Your task to perform on an android device: see tabs open on other devices in the chrome app Image 0: 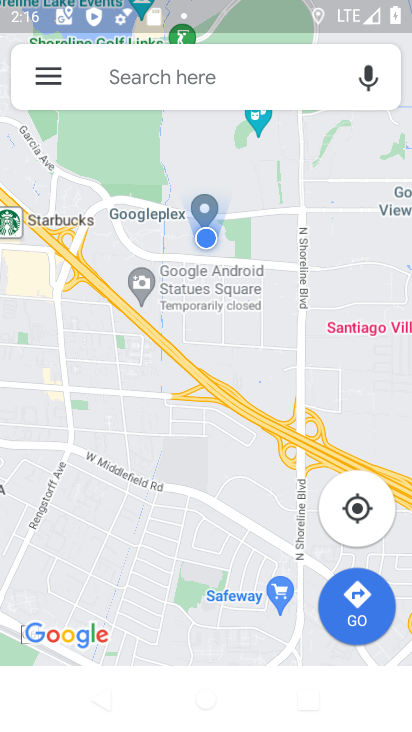
Step 0: press back button
Your task to perform on an android device: see tabs open on other devices in the chrome app Image 1: 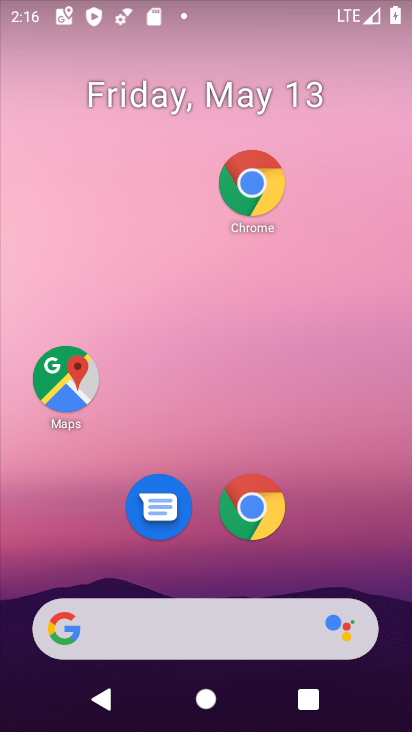
Step 1: drag from (236, 649) to (178, 202)
Your task to perform on an android device: see tabs open on other devices in the chrome app Image 2: 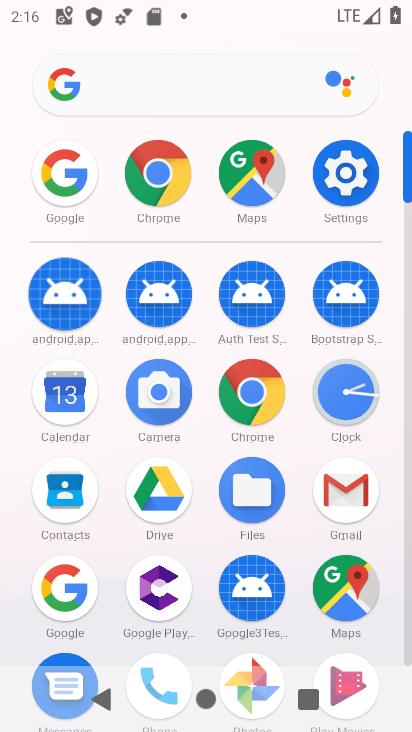
Step 2: click (160, 180)
Your task to perform on an android device: see tabs open on other devices in the chrome app Image 3: 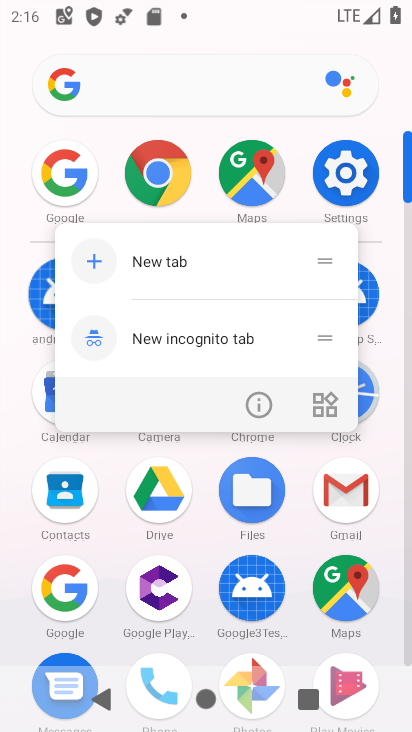
Step 3: click (153, 184)
Your task to perform on an android device: see tabs open on other devices in the chrome app Image 4: 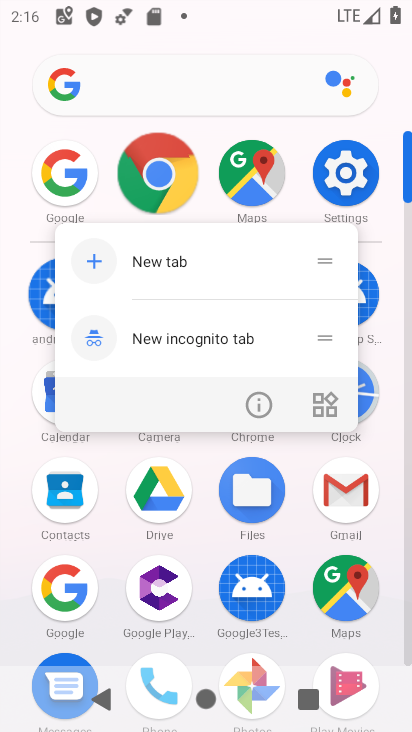
Step 4: click (153, 179)
Your task to perform on an android device: see tabs open on other devices in the chrome app Image 5: 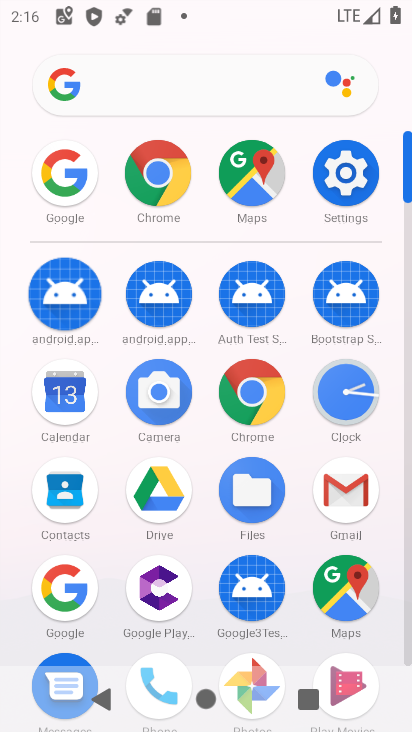
Step 5: click (153, 179)
Your task to perform on an android device: see tabs open on other devices in the chrome app Image 6: 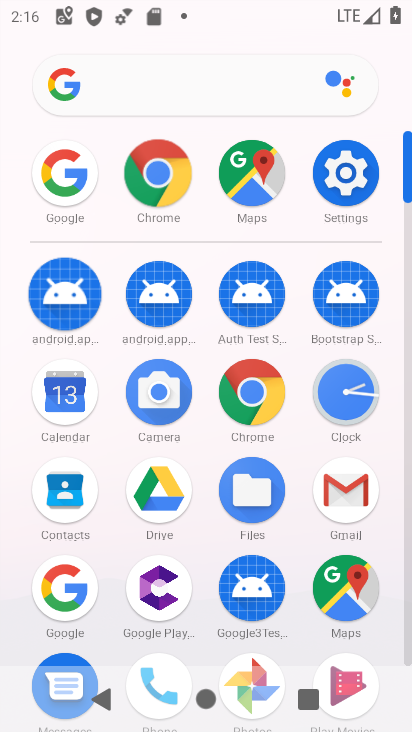
Step 6: click (153, 179)
Your task to perform on an android device: see tabs open on other devices in the chrome app Image 7: 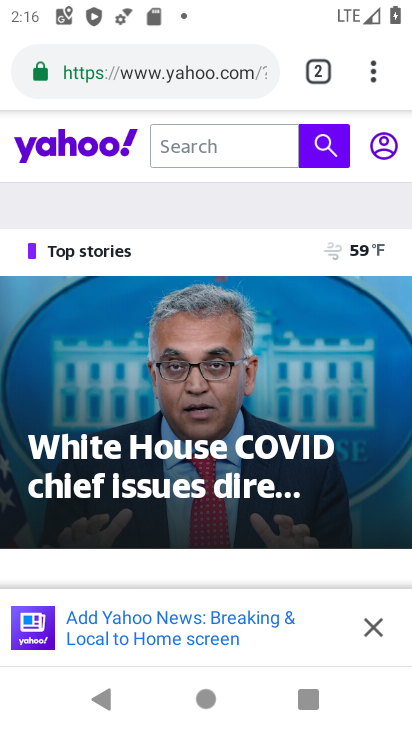
Step 7: drag from (375, 69) to (117, 120)
Your task to perform on an android device: see tabs open on other devices in the chrome app Image 8: 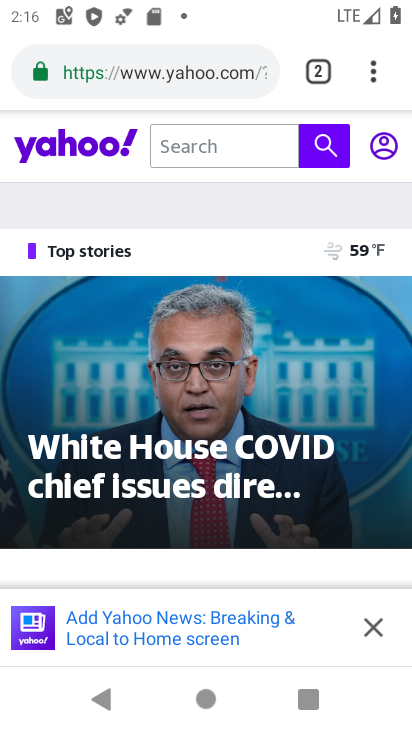
Step 8: click (231, 394)
Your task to perform on an android device: see tabs open on other devices in the chrome app Image 9: 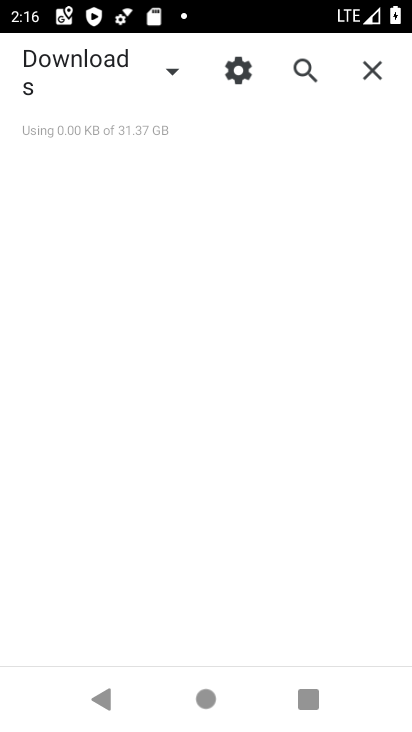
Step 9: click (383, 65)
Your task to perform on an android device: see tabs open on other devices in the chrome app Image 10: 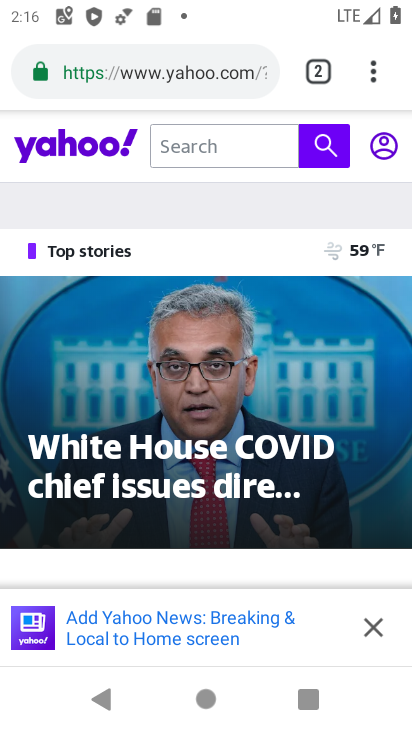
Step 10: drag from (367, 66) to (102, 337)
Your task to perform on an android device: see tabs open on other devices in the chrome app Image 11: 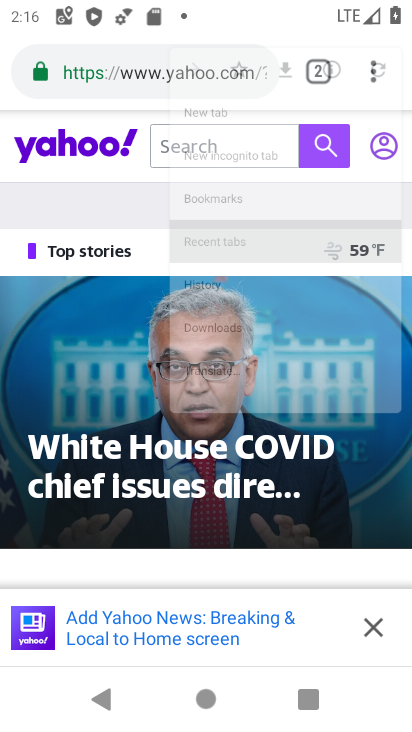
Step 11: click (103, 332)
Your task to perform on an android device: see tabs open on other devices in the chrome app Image 12: 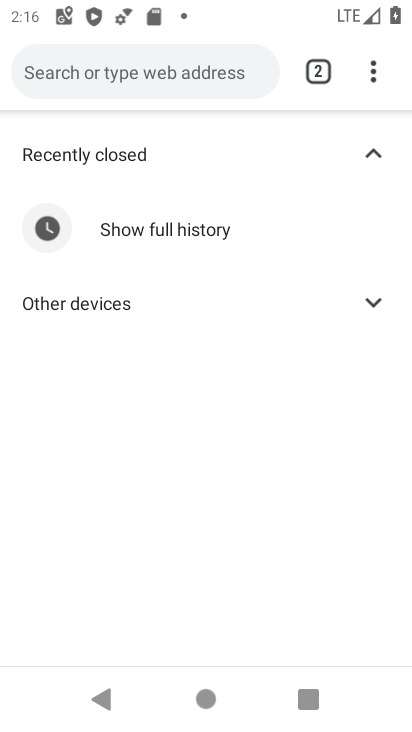
Step 12: task complete